Your task to perform on an android device: open app "Adobe Express: Graphic Design" Image 0: 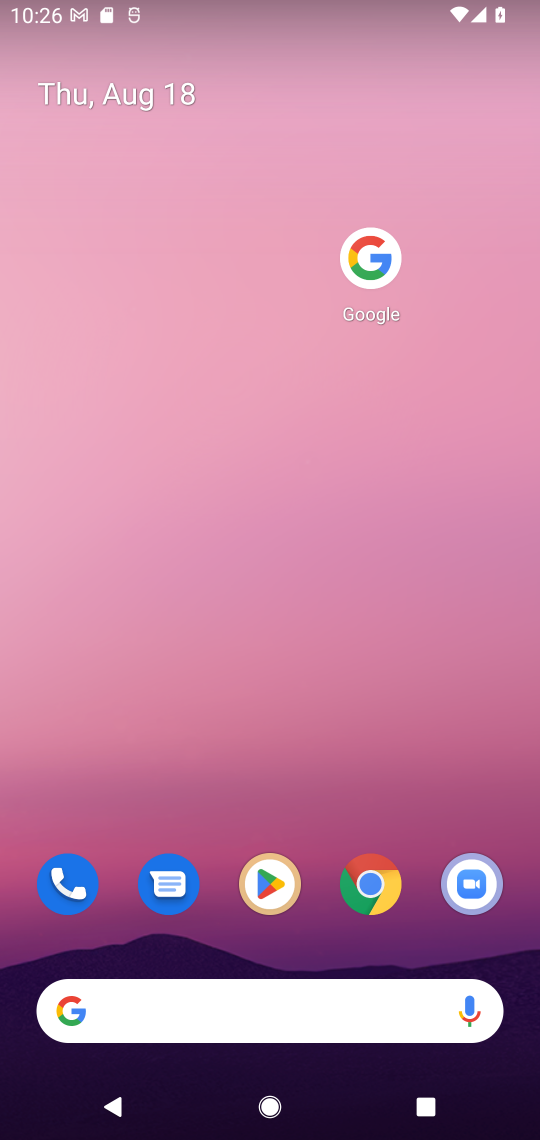
Step 0: click (268, 891)
Your task to perform on an android device: open app "Adobe Express: Graphic Design" Image 1: 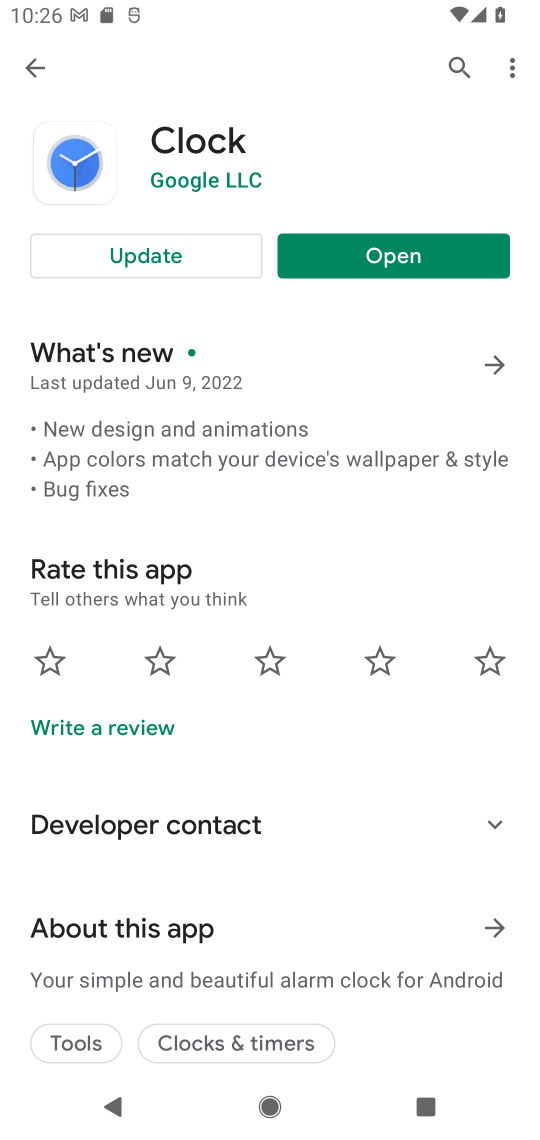
Step 1: click (440, 73)
Your task to perform on an android device: open app "Adobe Express: Graphic Design" Image 2: 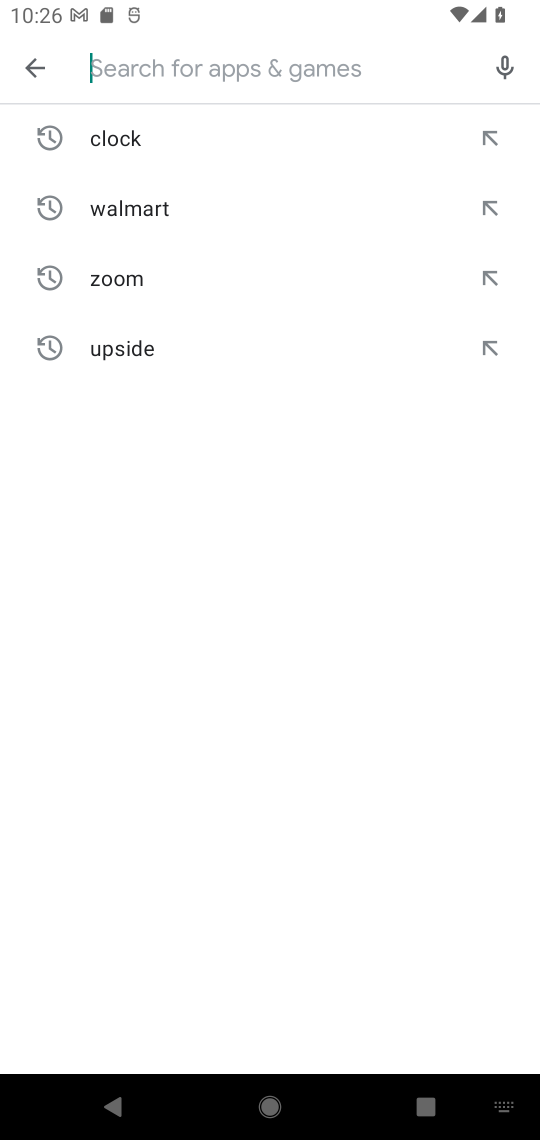
Step 2: type "adobe"
Your task to perform on an android device: open app "Adobe Express: Graphic Design" Image 3: 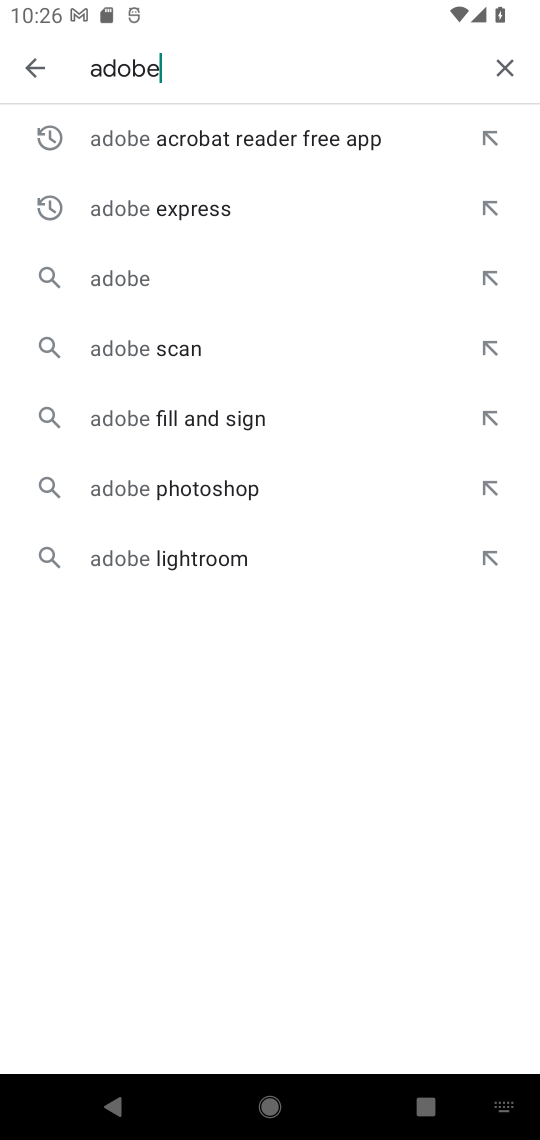
Step 3: click (292, 159)
Your task to perform on an android device: open app "Adobe Express: Graphic Design" Image 4: 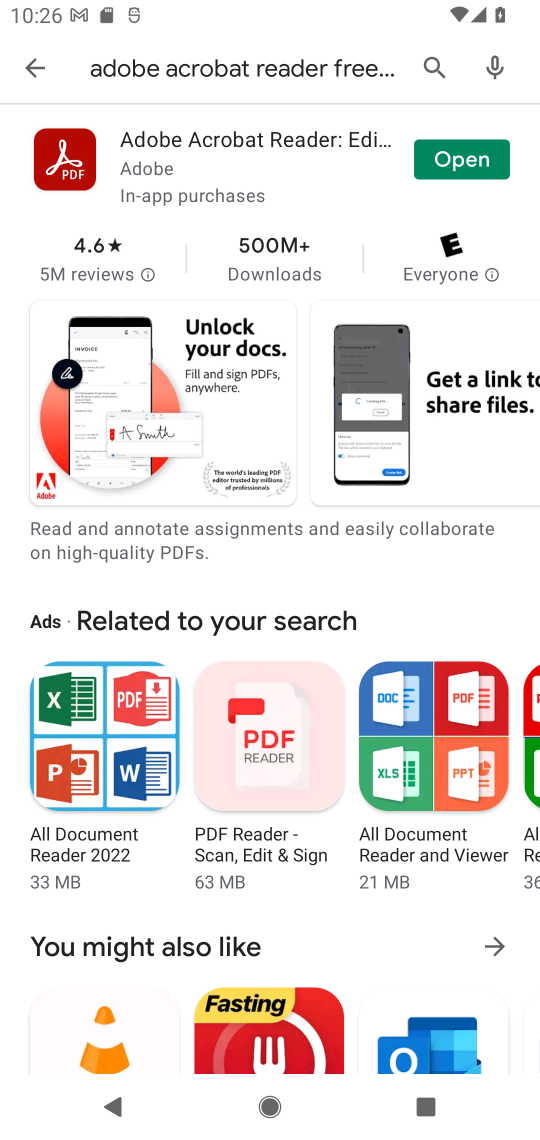
Step 4: click (436, 167)
Your task to perform on an android device: open app "Adobe Express: Graphic Design" Image 5: 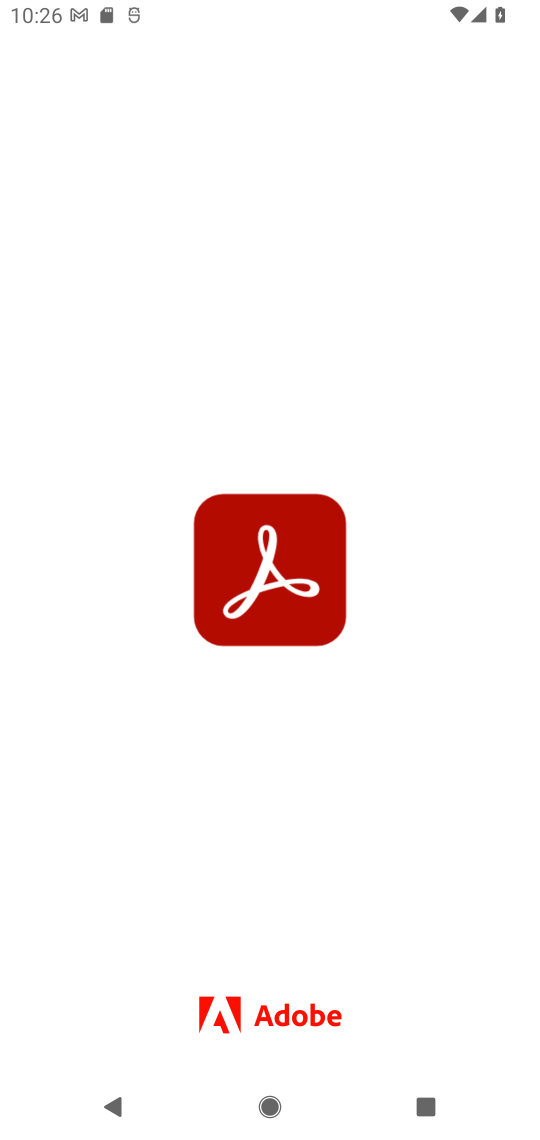
Step 5: task complete